Your task to perform on an android device: Open Yahoo.com Image 0: 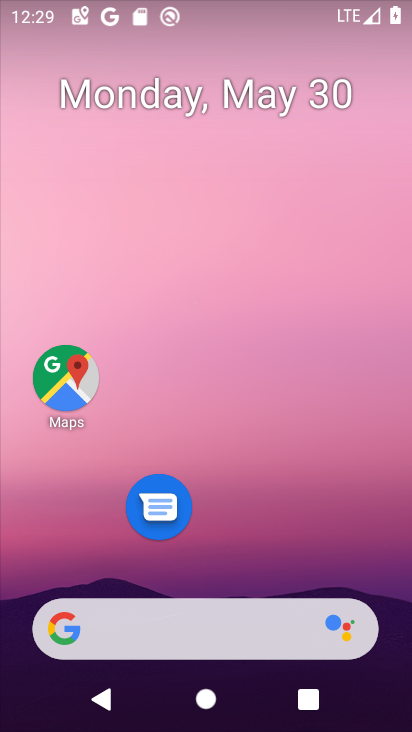
Step 0: drag from (240, 528) to (271, 61)
Your task to perform on an android device: Open Yahoo.com Image 1: 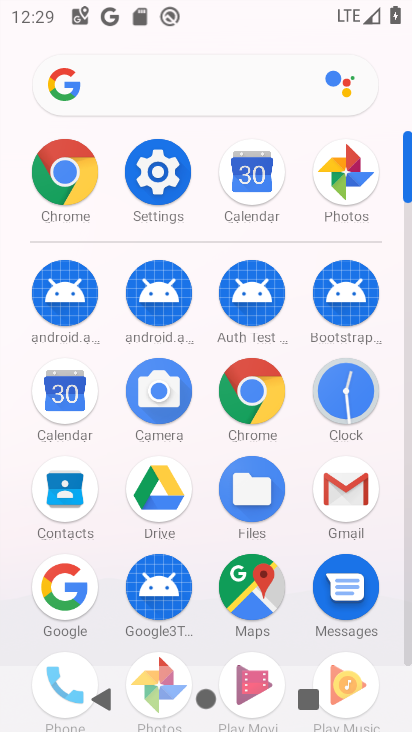
Step 1: click (258, 400)
Your task to perform on an android device: Open Yahoo.com Image 2: 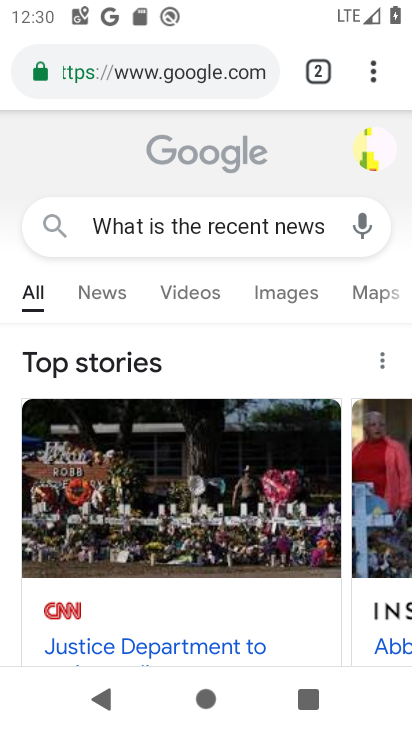
Step 2: click (140, 71)
Your task to perform on an android device: Open Yahoo.com Image 3: 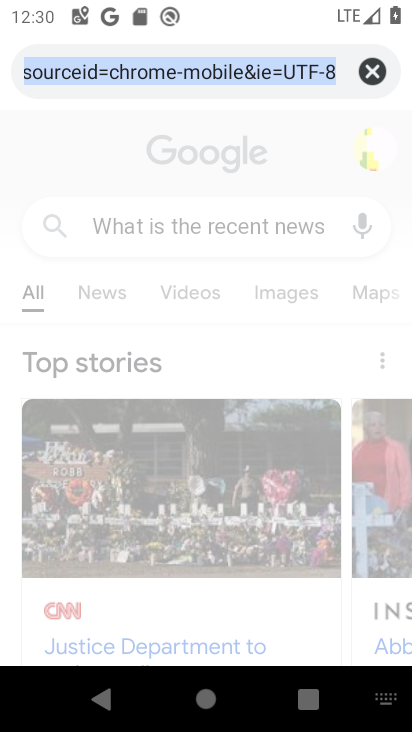
Step 3: click (371, 75)
Your task to perform on an android device: Open Yahoo.com Image 4: 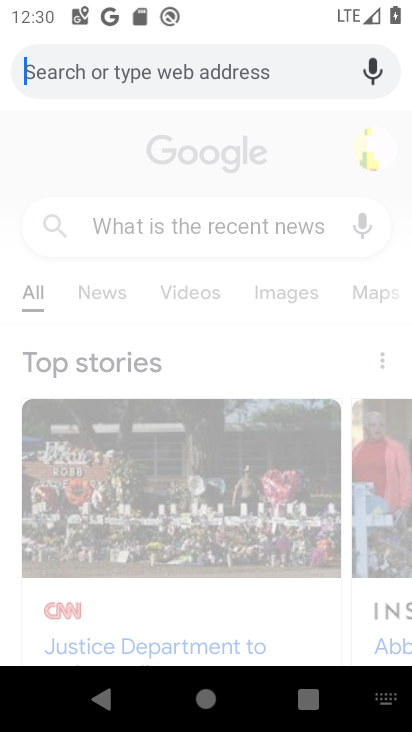
Step 4: type "Yahoo.com"
Your task to perform on an android device: Open Yahoo.com Image 5: 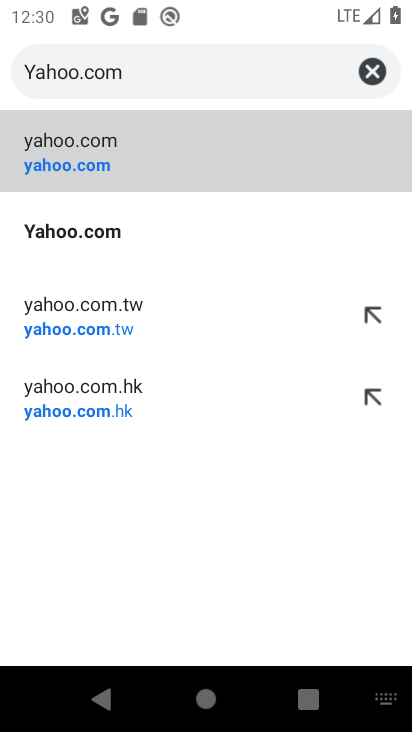
Step 5: click (47, 159)
Your task to perform on an android device: Open Yahoo.com Image 6: 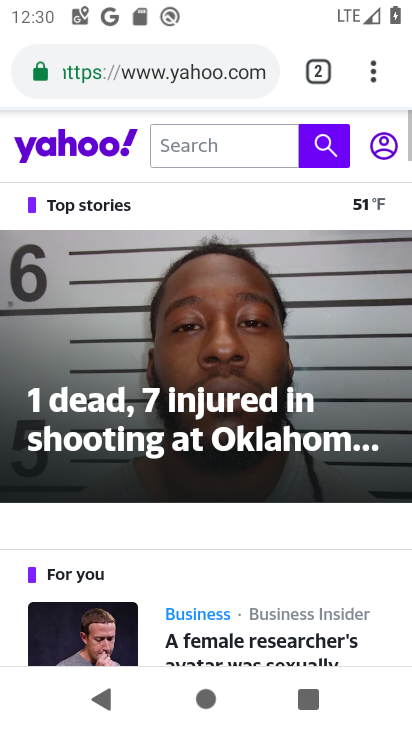
Step 6: task complete